Your task to perform on an android device: Check the news Image 0: 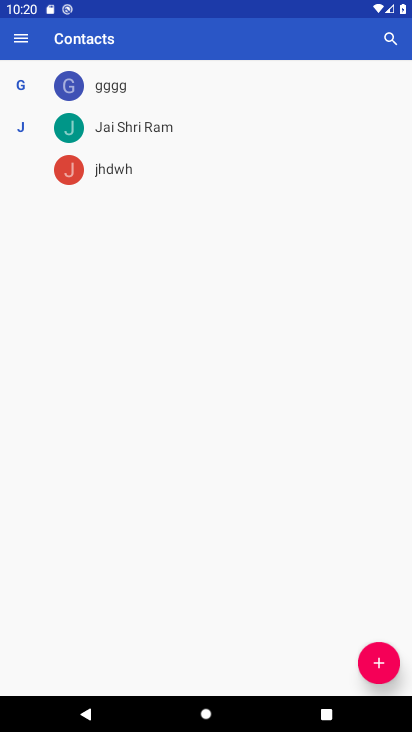
Step 0: press home button
Your task to perform on an android device: Check the news Image 1: 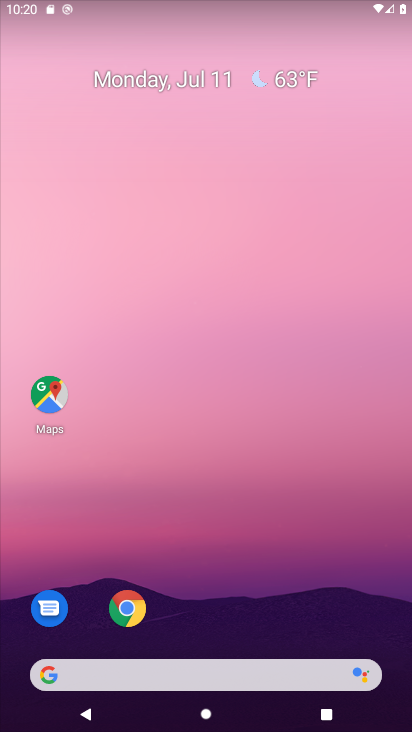
Step 1: click (263, 672)
Your task to perform on an android device: Check the news Image 2: 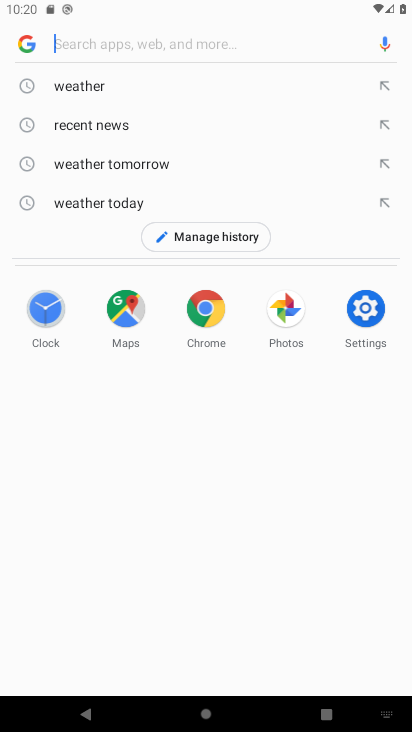
Step 2: type "news"
Your task to perform on an android device: Check the news Image 3: 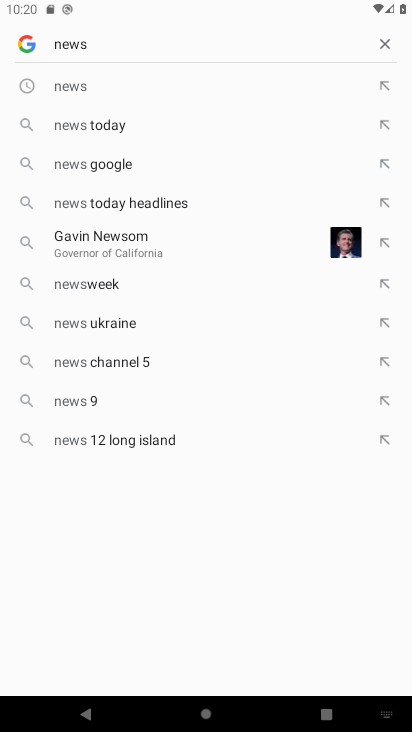
Step 3: click (90, 91)
Your task to perform on an android device: Check the news Image 4: 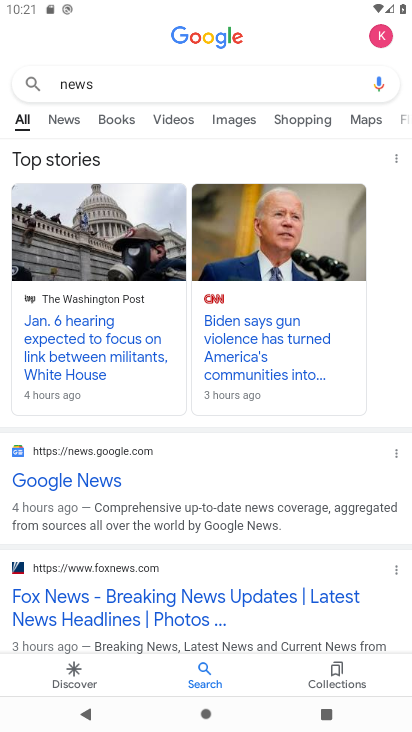
Step 4: task complete